Your task to perform on an android device: What is the news today? Image 0: 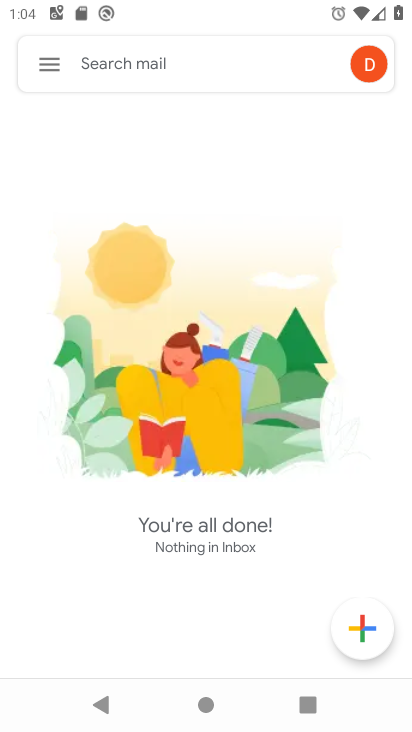
Step 0: press home button
Your task to perform on an android device: What is the news today? Image 1: 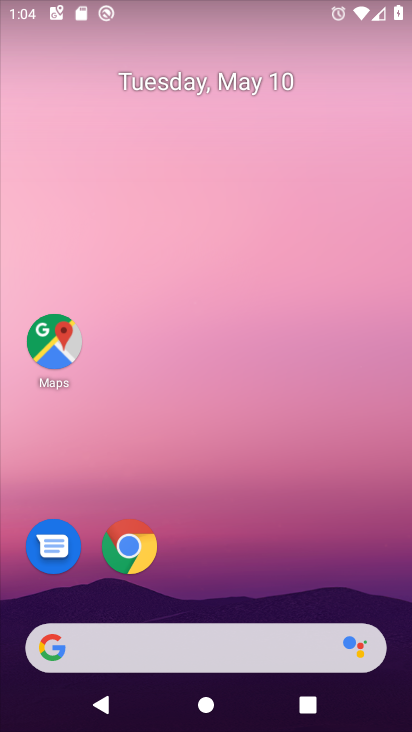
Step 1: click (142, 554)
Your task to perform on an android device: What is the news today? Image 2: 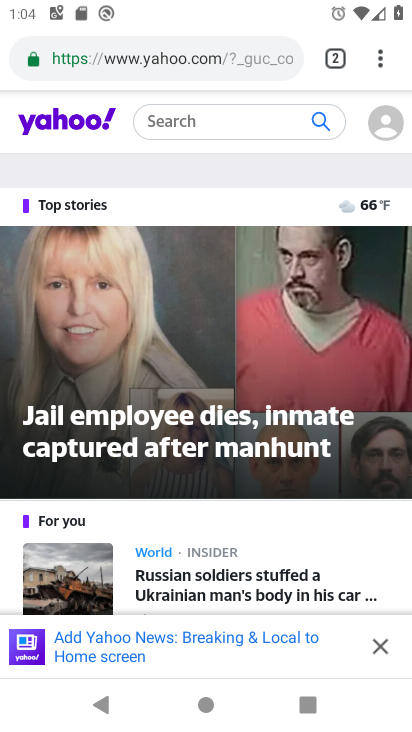
Step 2: click (124, 49)
Your task to perform on an android device: What is the news today? Image 3: 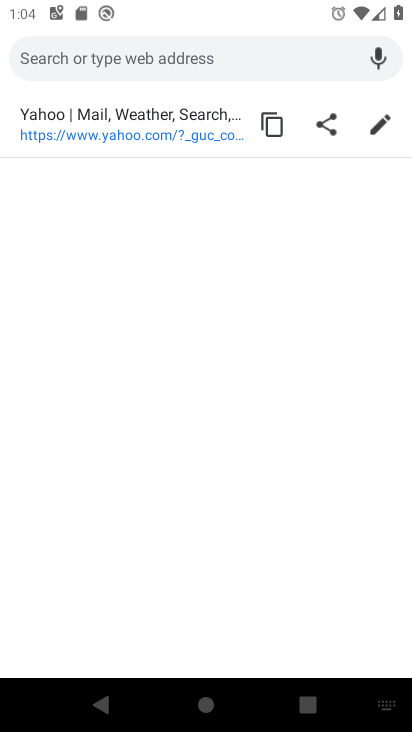
Step 3: type "What is the news today?"
Your task to perform on an android device: What is the news today? Image 4: 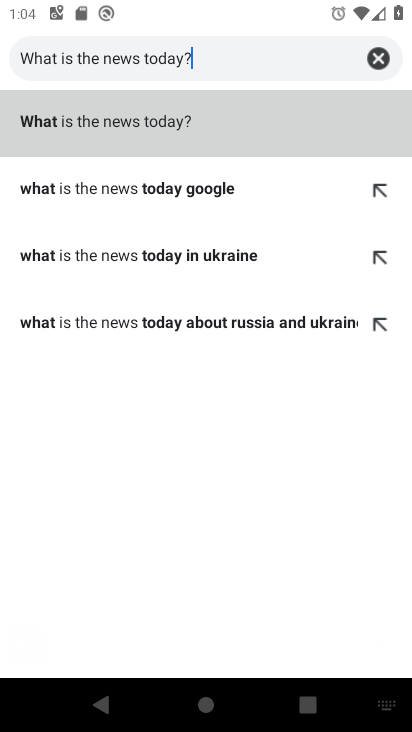
Step 4: type ""
Your task to perform on an android device: What is the news today? Image 5: 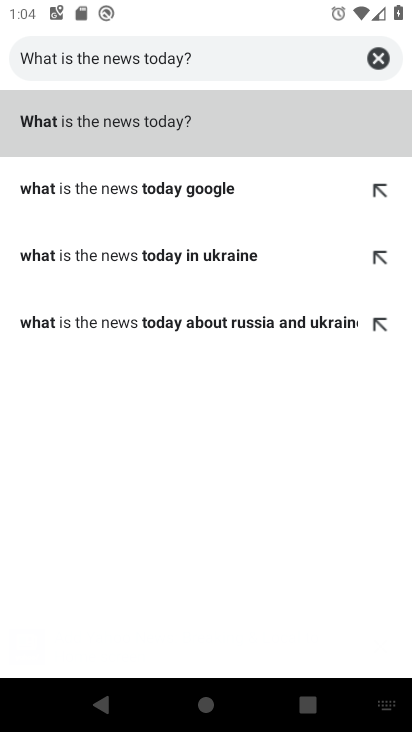
Step 5: click (166, 132)
Your task to perform on an android device: What is the news today? Image 6: 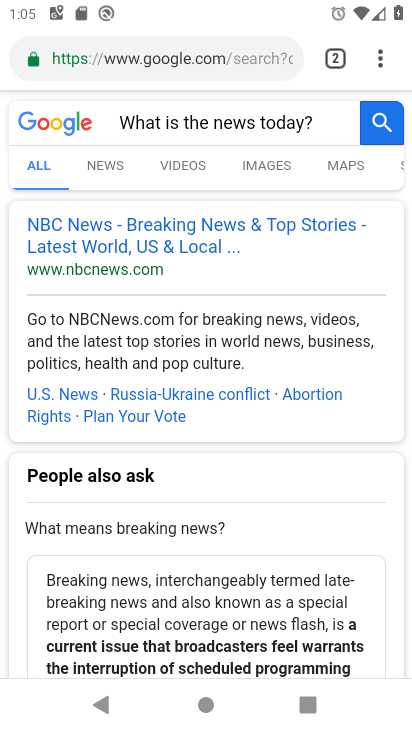
Step 6: task complete